Your task to perform on an android device: open app "Speedtest by Ookla" (install if not already installed), go to login, and select forgot password Image 0: 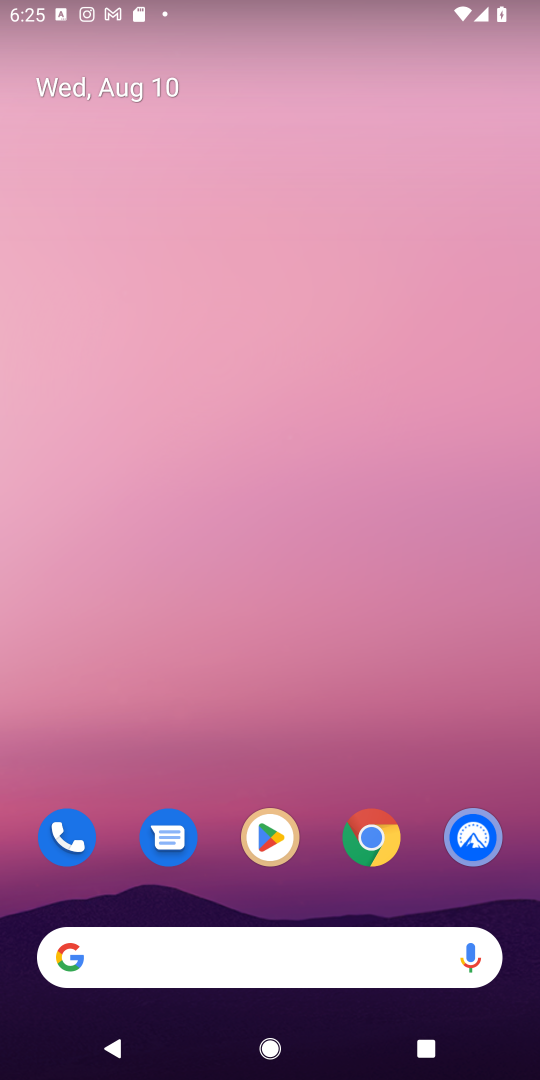
Step 0: press home button
Your task to perform on an android device: open app "Speedtest by Ookla" (install if not already installed), go to login, and select forgot password Image 1: 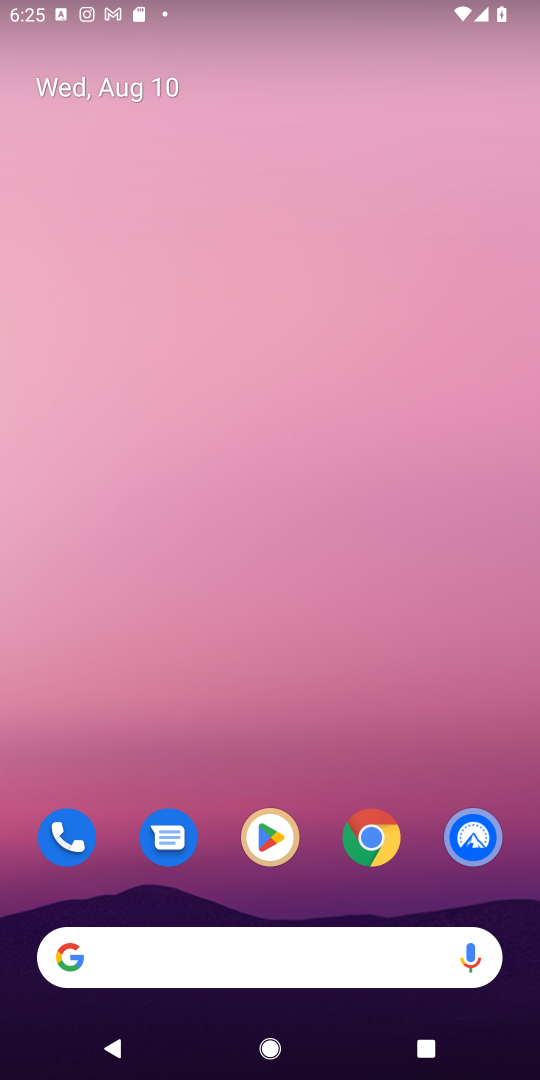
Step 1: click (274, 832)
Your task to perform on an android device: open app "Speedtest by Ookla" (install if not already installed), go to login, and select forgot password Image 2: 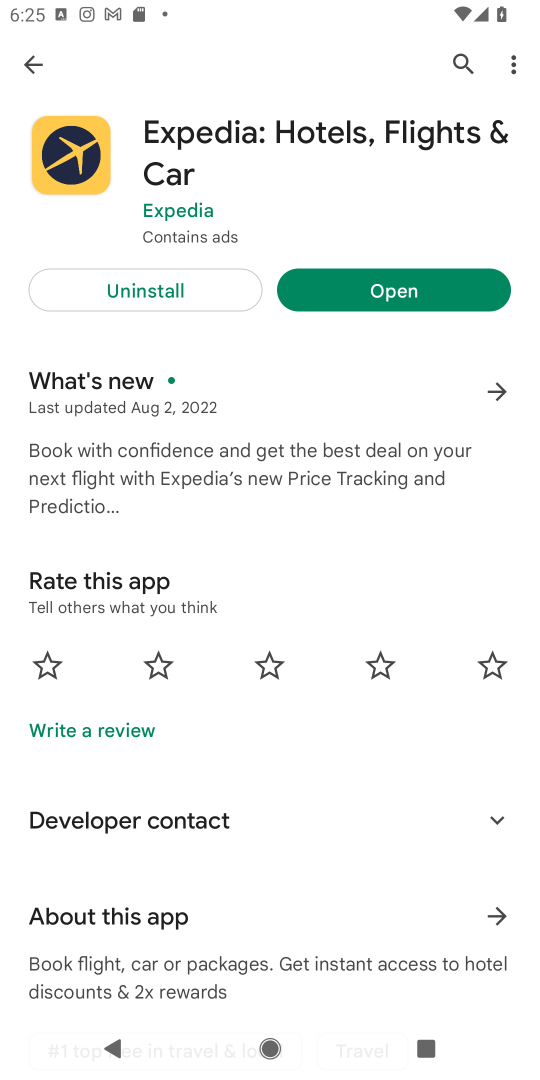
Step 2: click (458, 52)
Your task to perform on an android device: open app "Speedtest by Ookla" (install if not already installed), go to login, and select forgot password Image 3: 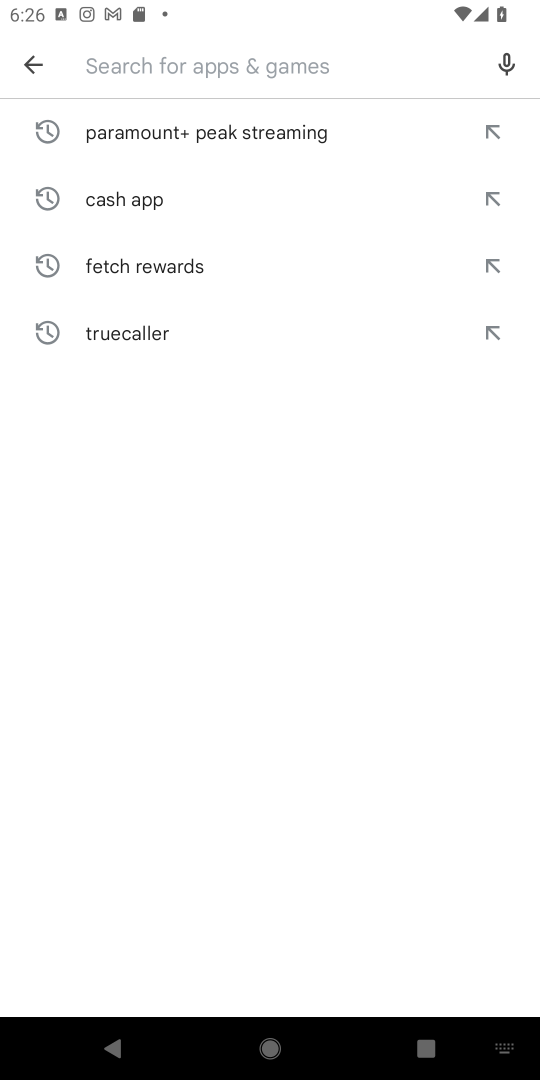
Step 3: type "Speedtest by Ookla"
Your task to perform on an android device: open app "Speedtest by Ookla" (install if not already installed), go to login, and select forgot password Image 4: 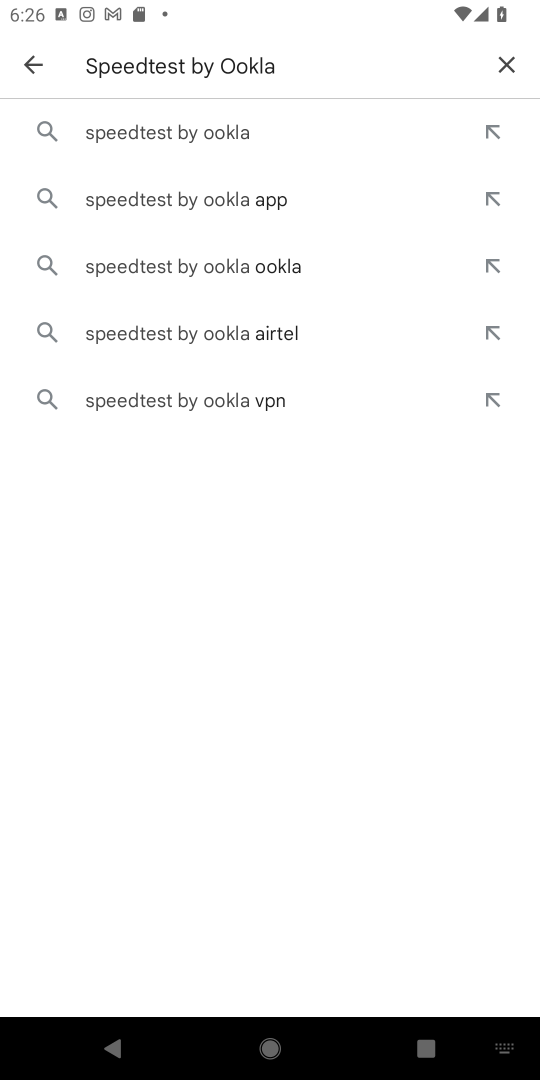
Step 4: click (231, 136)
Your task to perform on an android device: open app "Speedtest by Ookla" (install if not already installed), go to login, and select forgot password Image 5: 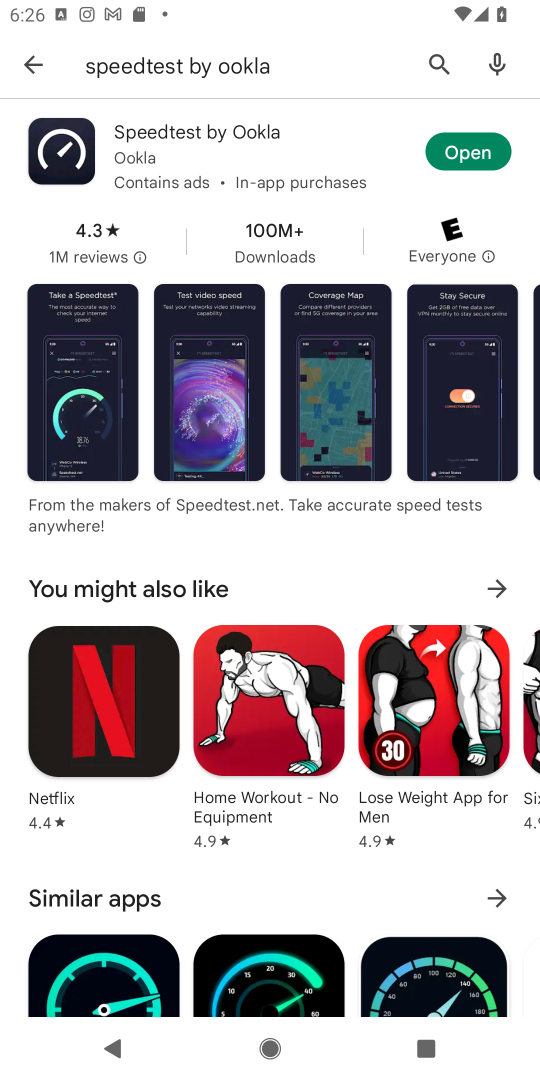
Step 5: click (483, 155)
Your task to perform on an android device: open app "Speedtest by Ookla" (install if not already installed), go to login, and select forgot password Image 6: 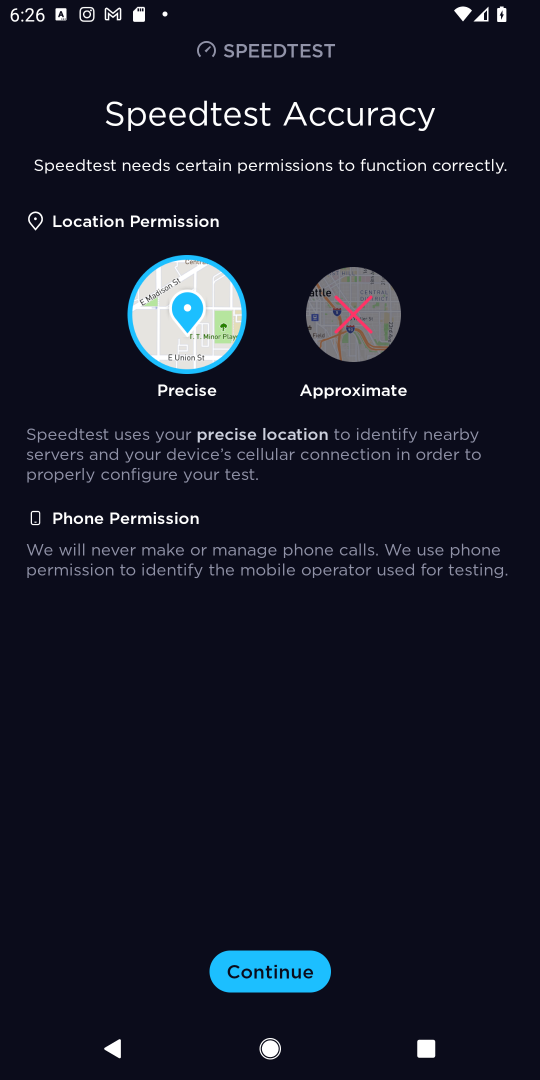
Step 6: task complete